Your task to perform on an android device: Open the map Image 0: 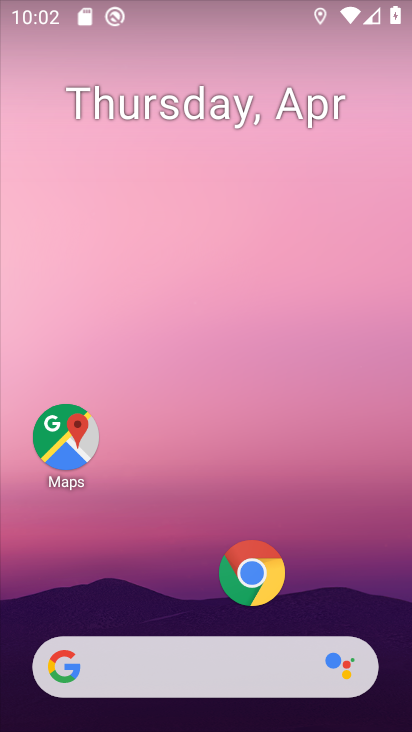
Step 0: click (57, 427)
Your task to perform on an android device: Open the map Image 1: 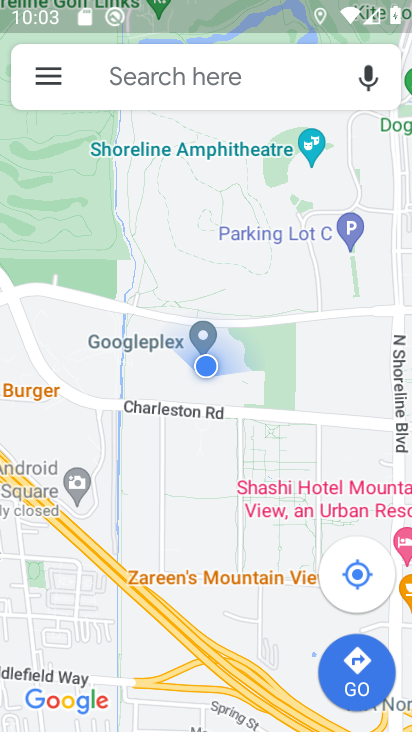
Step 1: task complete